Your task to perform on an android device: turn off location history Image 0: 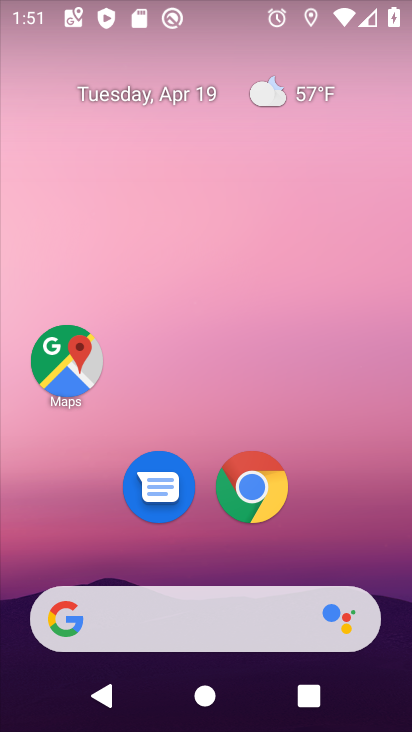
Step 0: drag from (355, 518) to (403, 106)
Your task to perform on an android device: turn off location history Image 1: 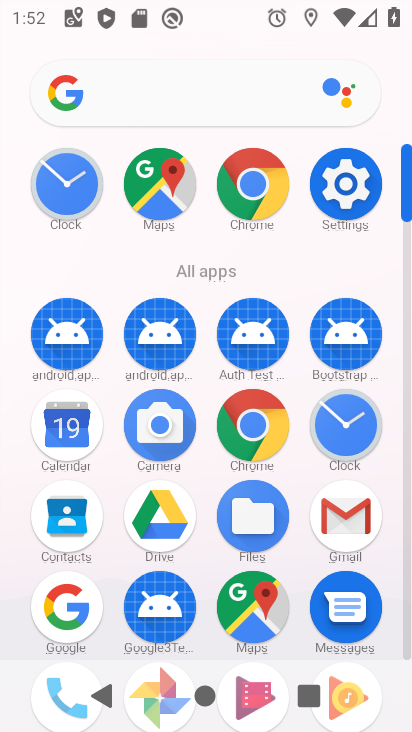
Step 1: click (328, 197)
Your task to perform on an android device: turn off location history Image 2: 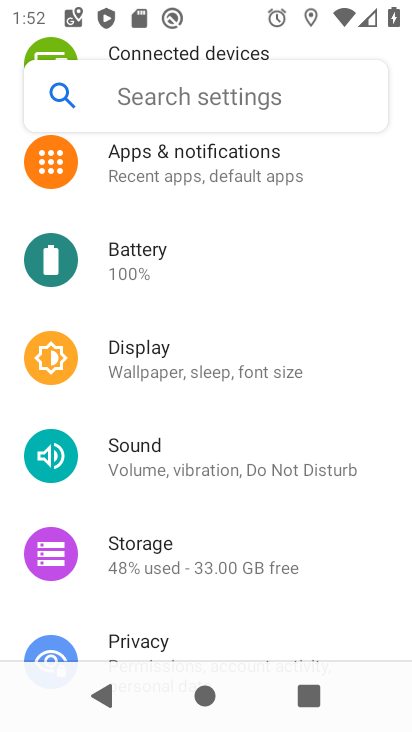
Step 2: drag from (313, 202) to (364, 566)
Your task to perform on an android device: turn off location history Image 3: 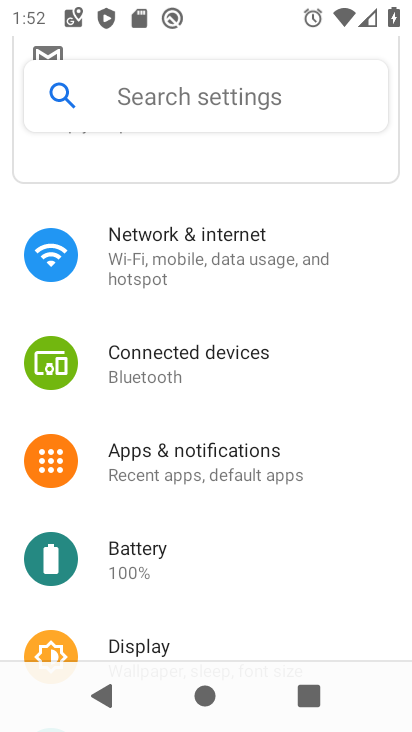
Step 3: drag from (333, 582) to (346, 162)
Your task to perform on an android device: turn off location history Image 4: 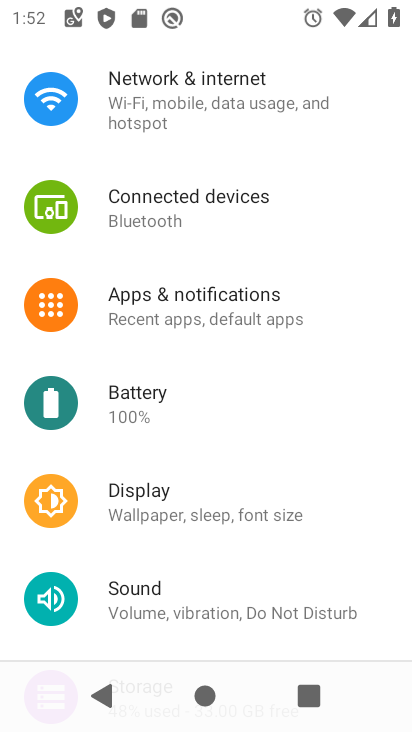
Step 4: drag from (350, 553) to (374, 118)
Your task to perform on an android device: turn off location history Image 5: 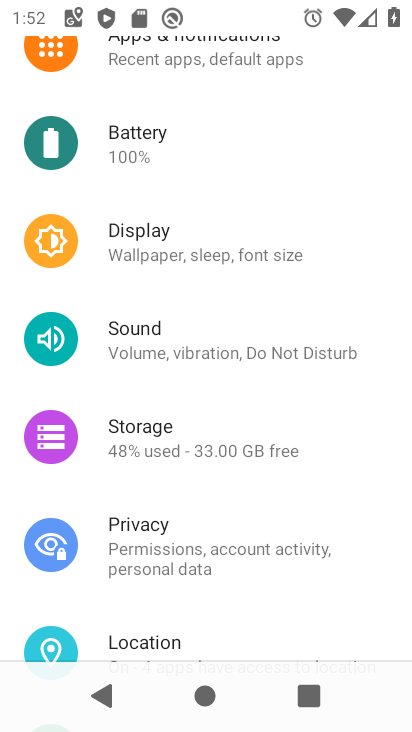
Step 5: drag from (323, 591) to (328, 270)
Your task to perform on an android device: turn off location history Image 6: 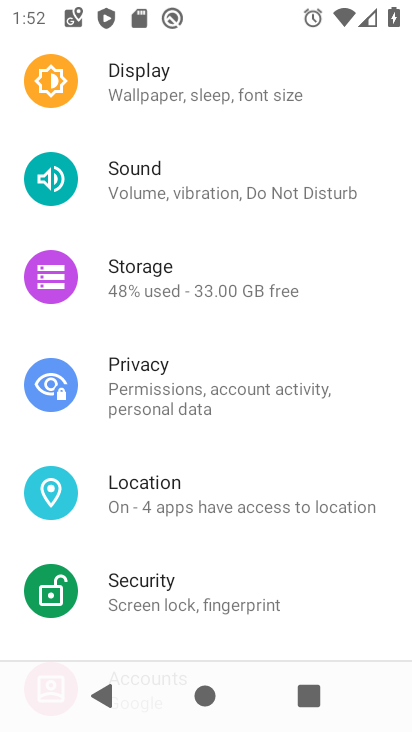
Step 6: click (140, 482)
Your task to perform on an android device: turn off location history Image 7: 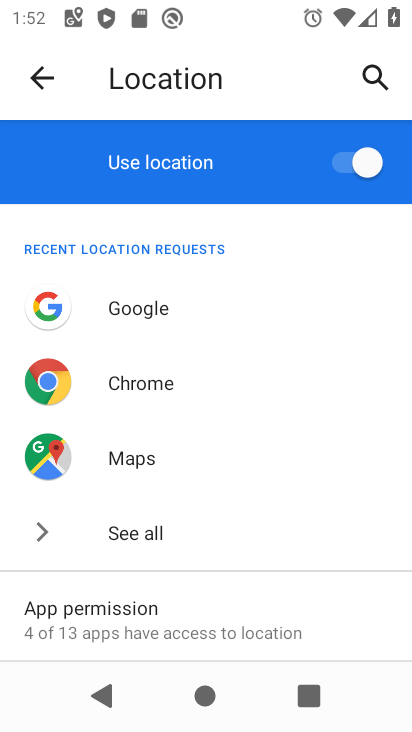
Step 7: click (342, 166)
Your task to perform on an android device: turn off location history Image 8: 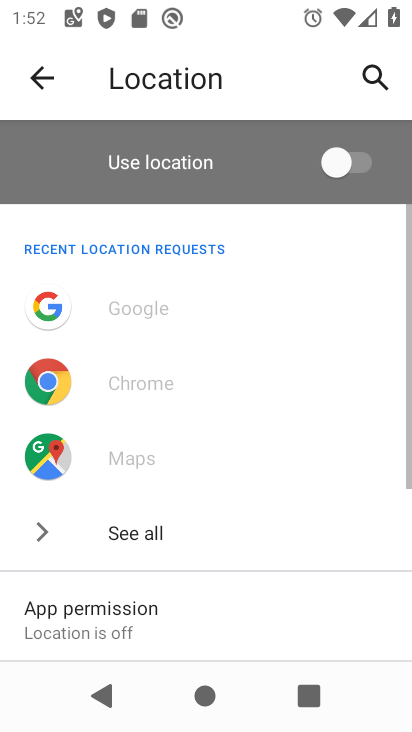
Step 8: task complete